Your task to perform on an android device: turn off airplane mode Image 0: 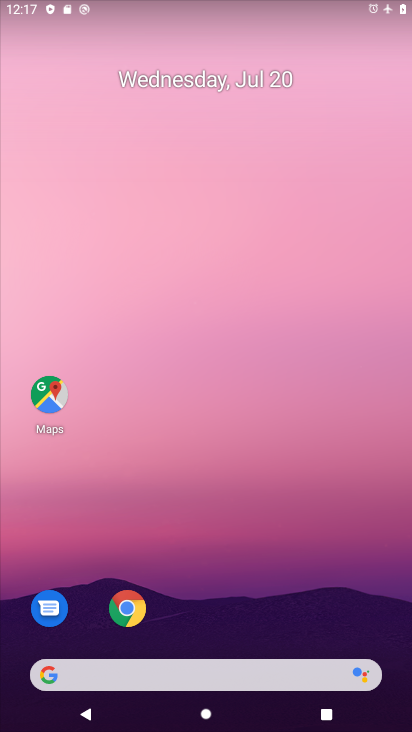
Step 0: drag from (167, 674) to (215, 179)
Your task to perform on an android device: turn off airplane mode Image 1: 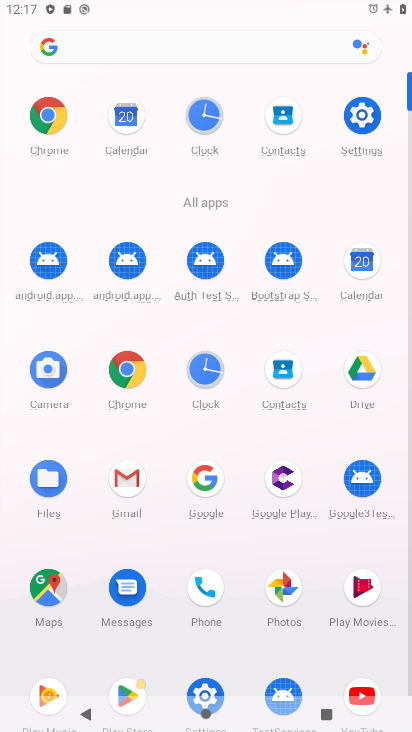
Step 1: click (362, 115)
Your task to perform on an android device: turn off airplane mode Image 2: 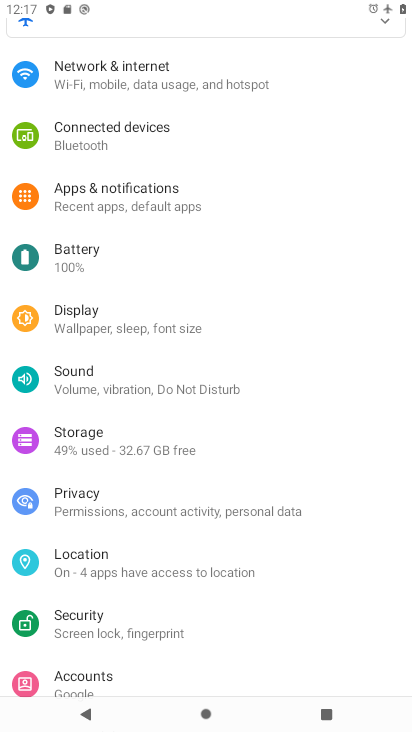
Step 2: click (146, 86)
Your task to perform on an android device: turn off airplane mode Image 3: 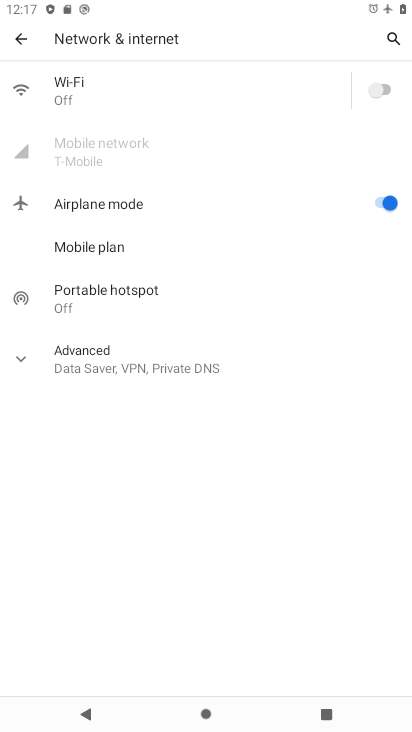
Step 3: click (384, 205)
Your task to perform on an android device: turn off airplane mode Image 4: 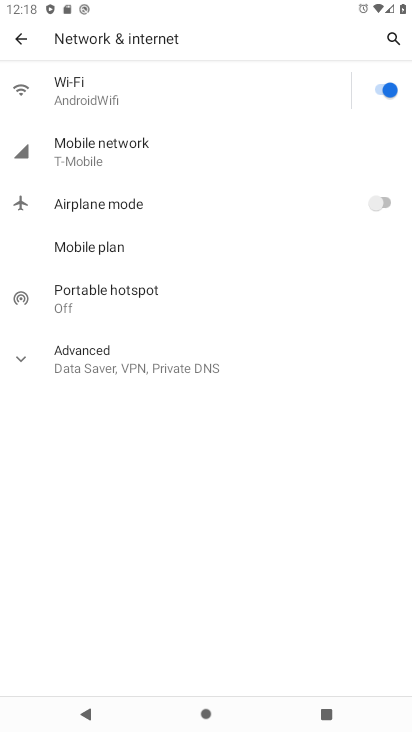
Step 4: task complete